Your task to perform on an android device: Search for sushi restaurants on Maps Image 0: 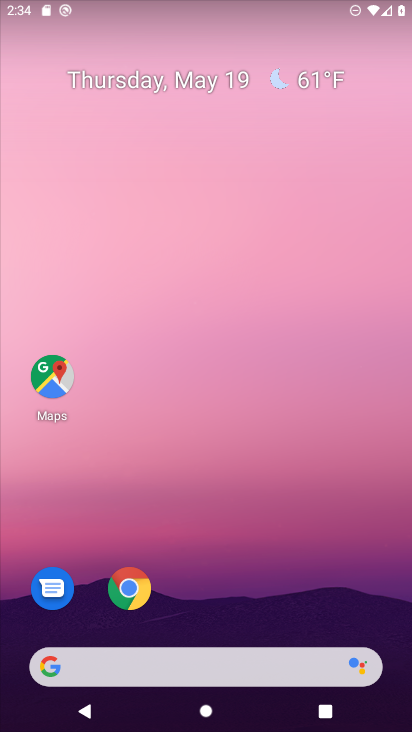
Step 0: click (50, 373)
Your task to perform on an android device: Search for sushi restaurants on Maps Image 1: 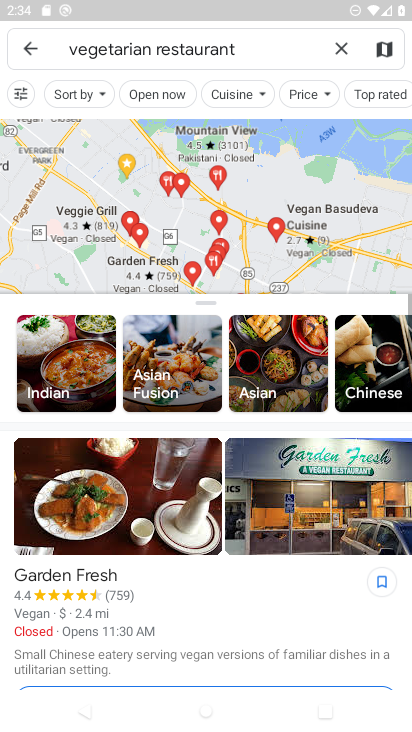
Step 1: click (343, 51)
Your task to perform on an android device: Search for sushi restaurants on Maps Image 2: 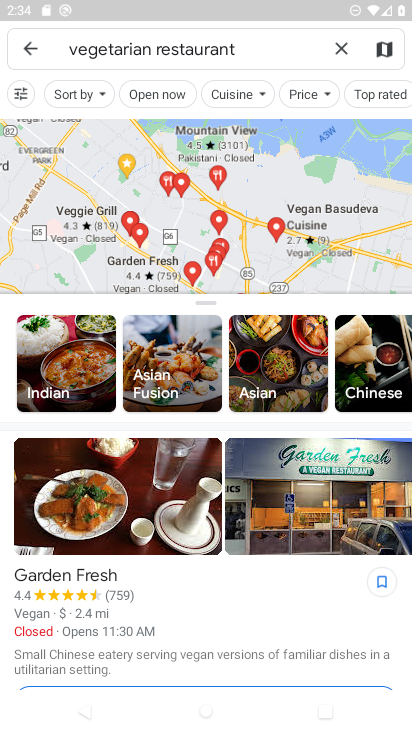
Step 2: click (336, 51)
Your task to perform on an android device: Search for sushi restaurants on Maps Image 3: 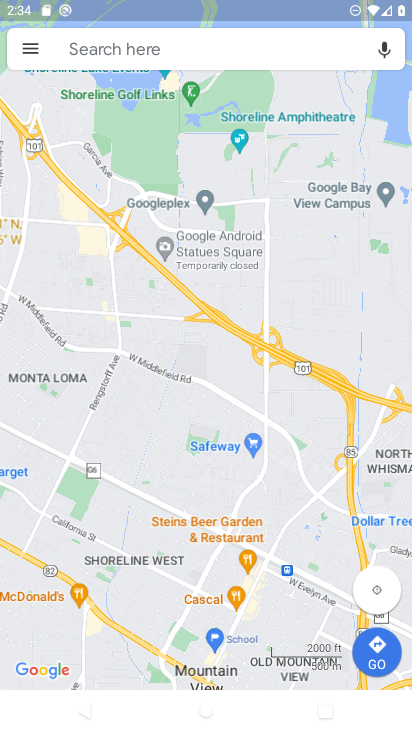
Step 3: click (92, 49)
Your task to perform on an android device: Search for sushi restaurants on Maps Image 4: 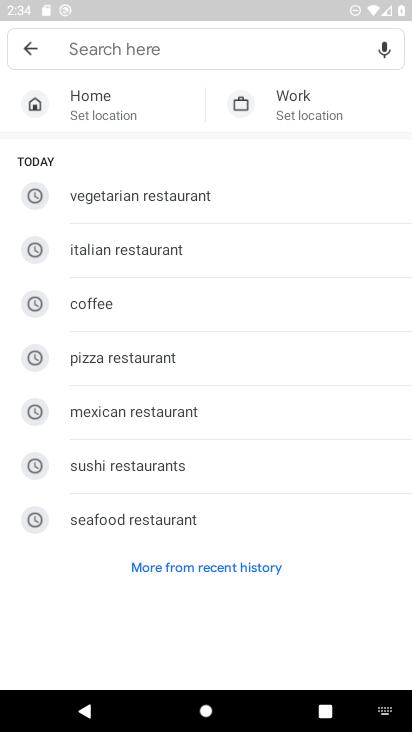
Step 4: type "sushi restaurant"
Your task to perform on an android device: Search for sushi restaurants on Maps Image 5: 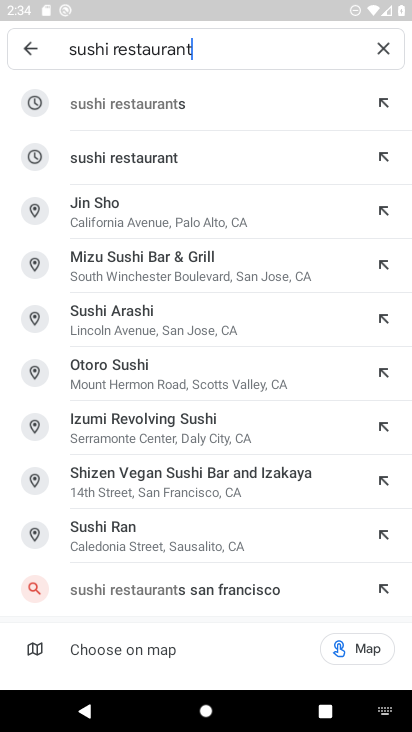
Step 5: click (149, 115)
Your task to perform on an android device: Search for sushi restaurants on Maps Image 6: 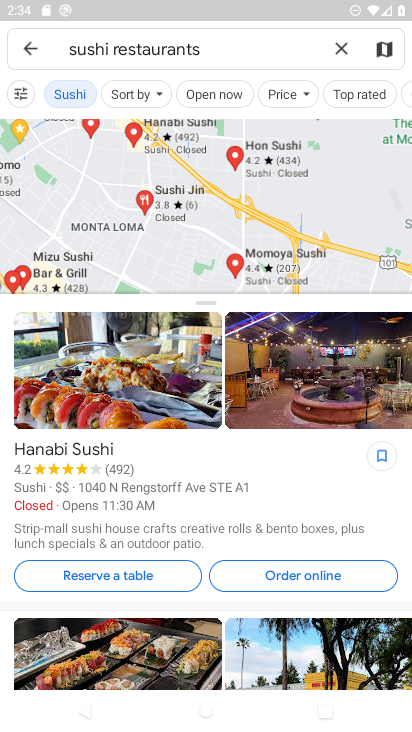
Step 6: task complete